Your task to perform on an android device: Open the web browser Image 0: 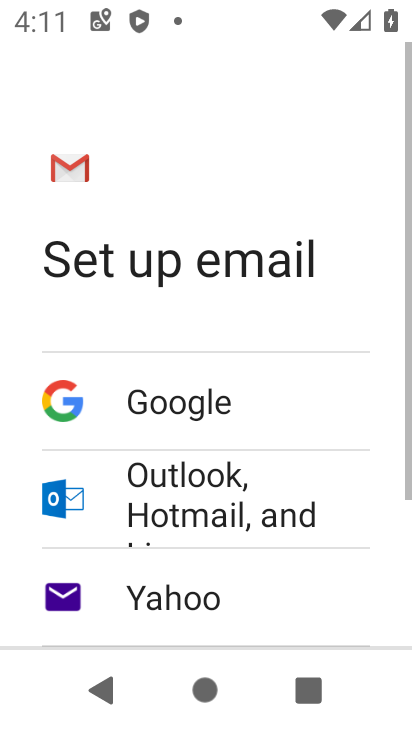
Step 0: press home button
Your task to perform on an android device: Open the web browser Image 1: 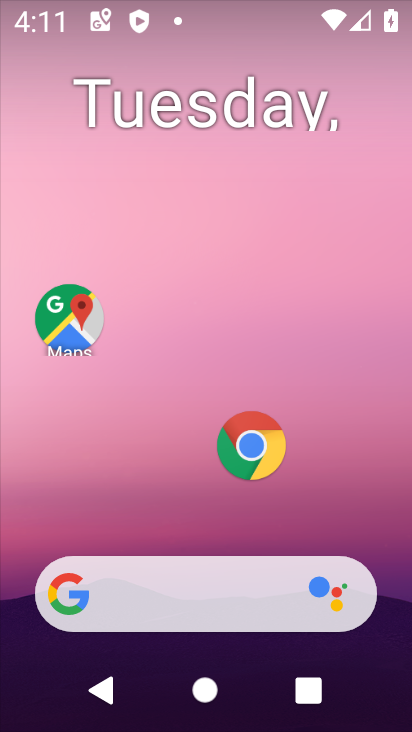
Step 1: drag from (163, 20) to (192, 0)
Your task to perform on an android device: Open the web browser Image 2: 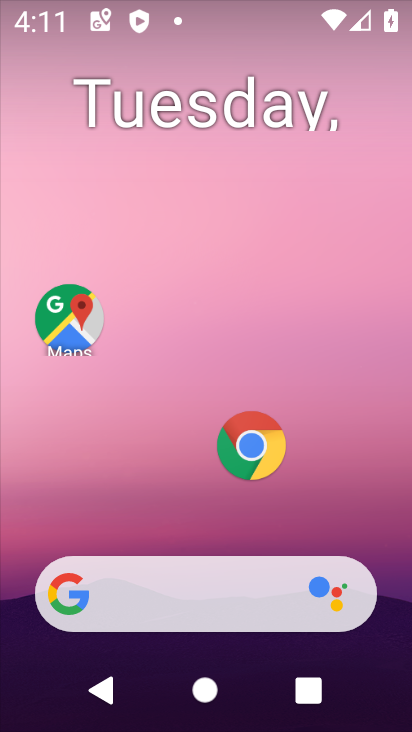
Step 2: drag from (167, 200) to (152, 15)
Your task to perform on an android device: Open the web browser Image 3: 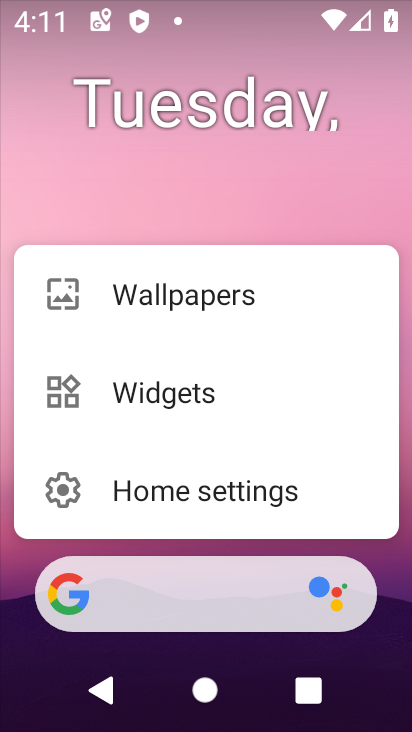
Step 3: click (149, 37)
Your task to perform on an android device: Open the web browser Image 4: 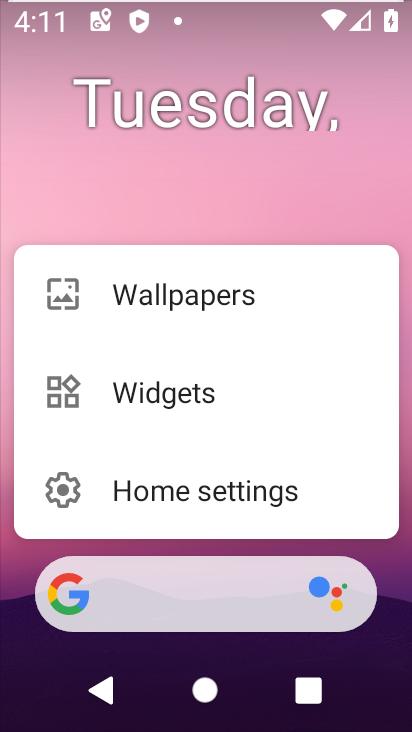
Step 4: click (205, 192)
Your task to perform on an android device: Open the web browser Image 5: 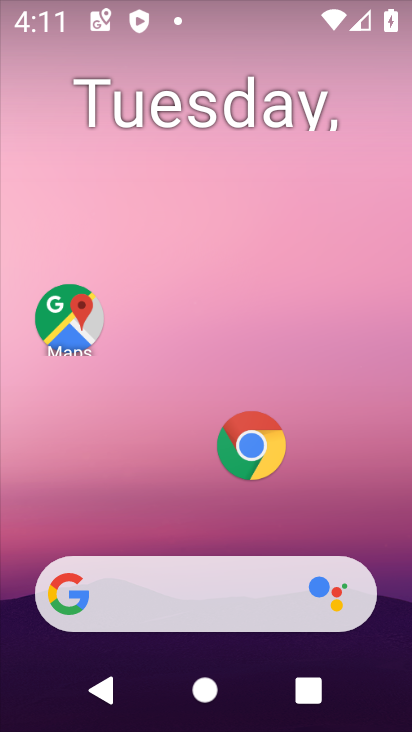
Step 5: click (233, 447)
Your task to perform on an android device: Open the web browser Image 6: 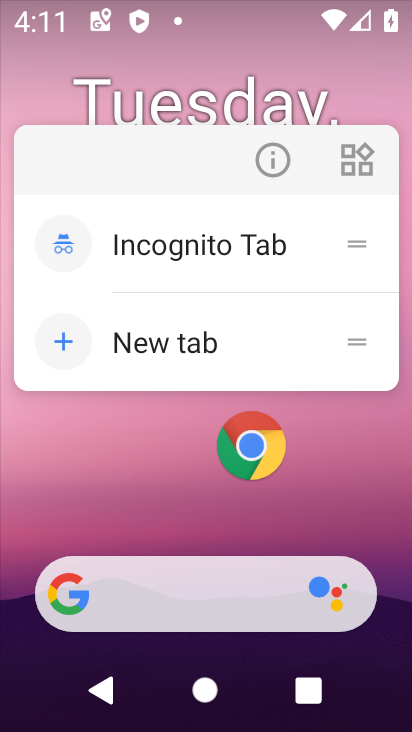
Step 6: click (232, 457)
Your task to perform on an android device: Open the web browser Image 7: 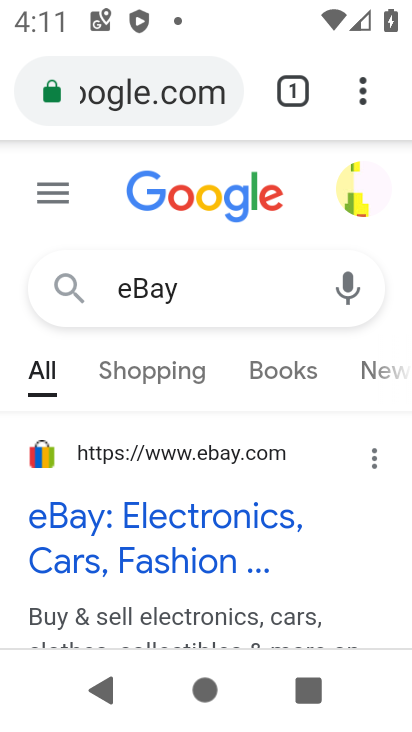
Step 7: task complete